Your task to perform on an android device: Open Android settings Image 0: 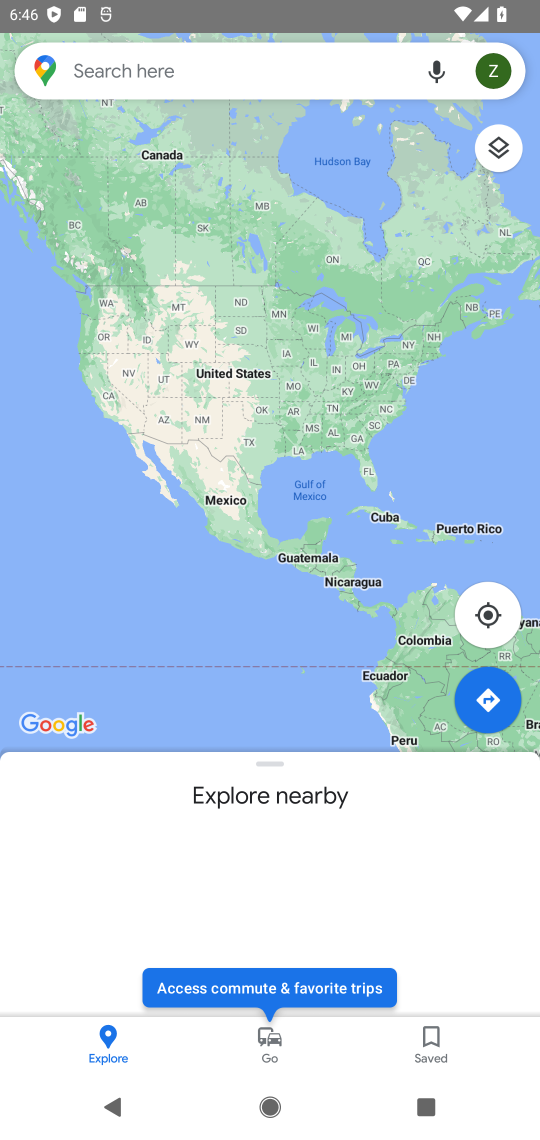
Step 0: press home button
Your task to perform on an android device: Open Android settings Image 1: 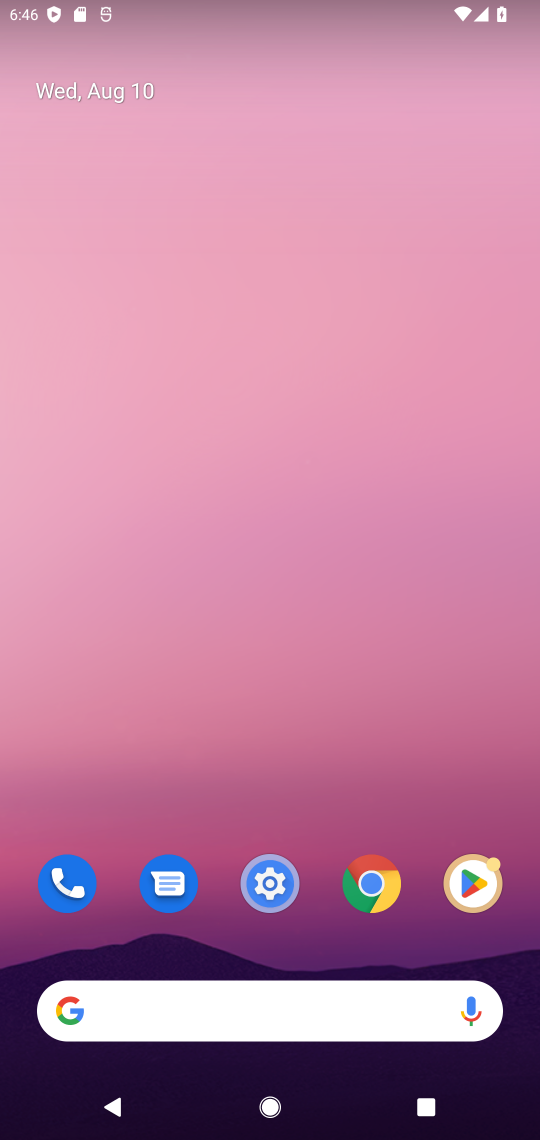
Step 1: click (281, 878)
Your task to perform on an android device: Open Android settings Image 2: 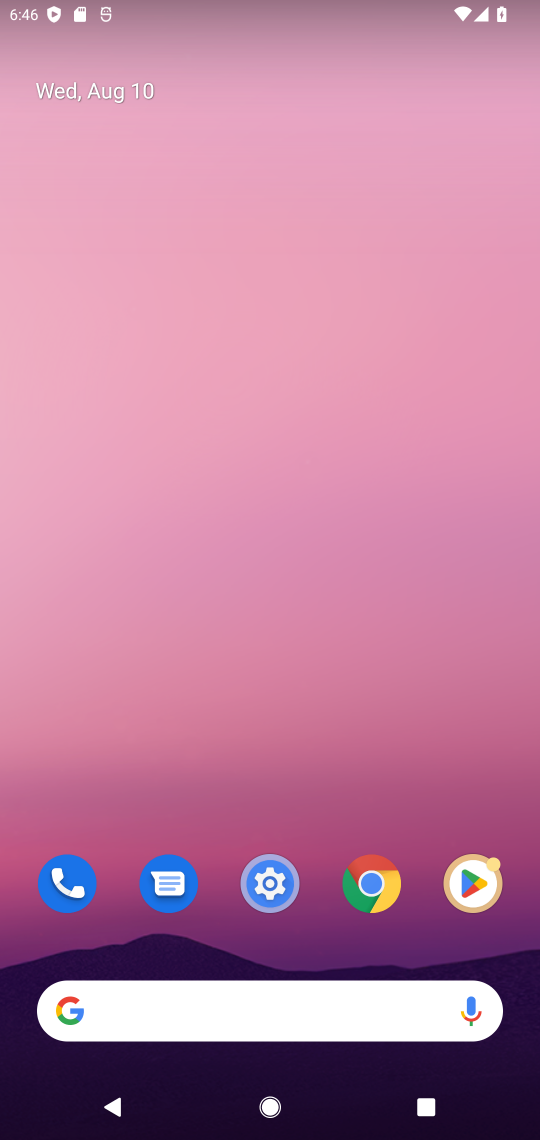
Step 2: click (293, 894)
Your task to perform on an android device: Open Android settings Image 3: 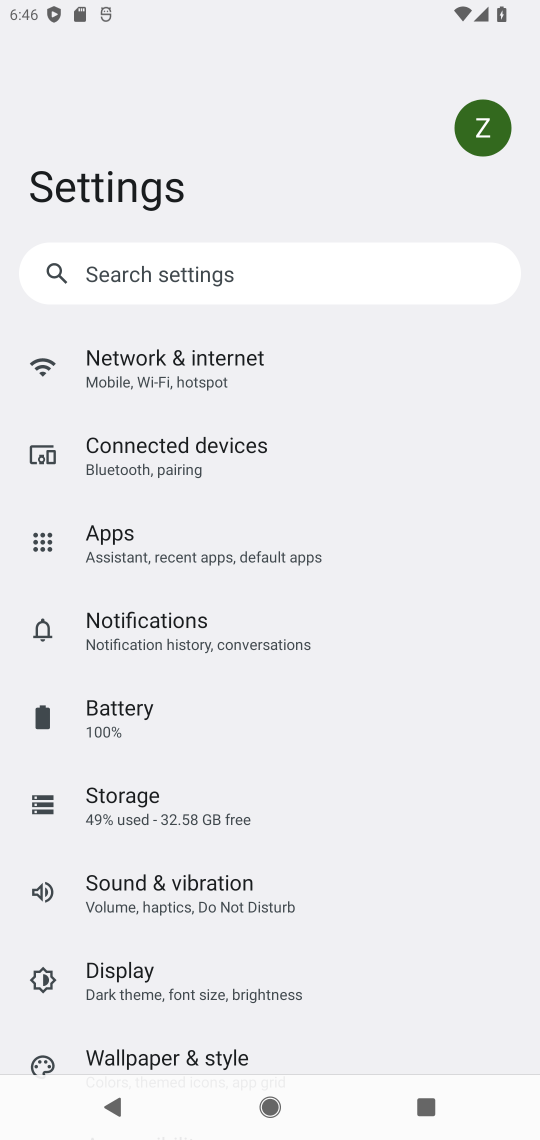
Step 3: task complete